Your task to perform on an android device: Set the phone to "Do not disturb". Image 0: 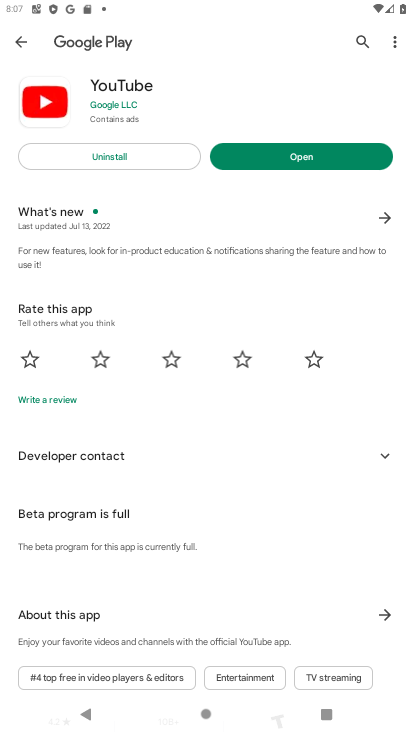
Step 0: click (313, 146)
Your task to perform on an android device: Set the phone to "Do not disturb". Image 1: 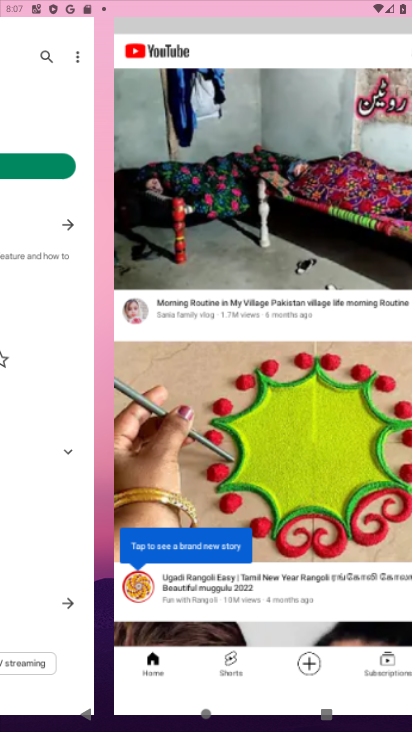
Step 1: click (315, 152)
Your task to perform on an android device: Set the phone to "Do not disturb". Image 2: 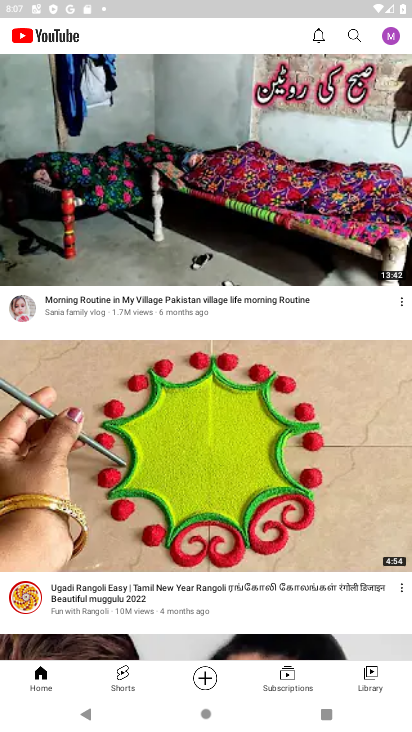
Step 2: task complete